Your task to perform on an android device: clear history in the chrome app Image 0: 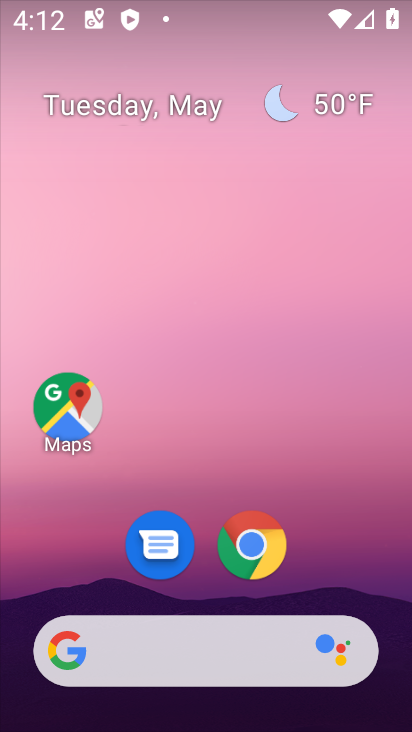
Step 0: click (259, 461)
Your task to perform on an android device: clear history in the chrome app Image 1: 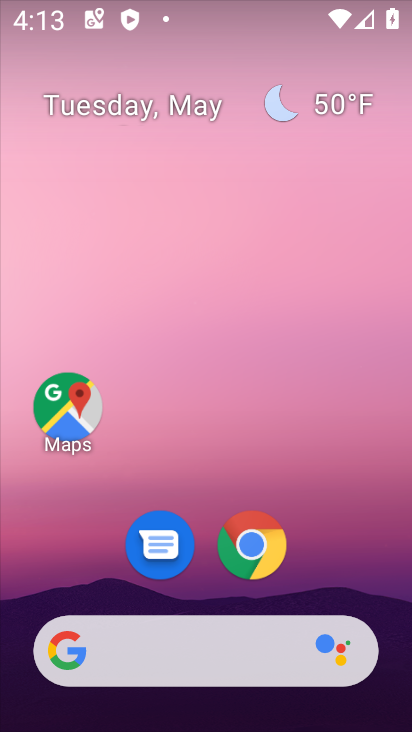
Step 1: click (269, 557)
Your task to perform on an android device: clear history in the chrome app Image 2: 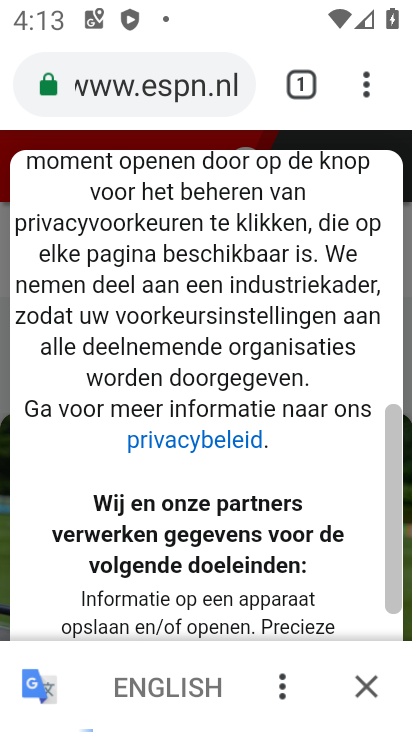
Step 2: click (364, 87)
Your task to perform on an android device: clear history in the chrome app Image 3: 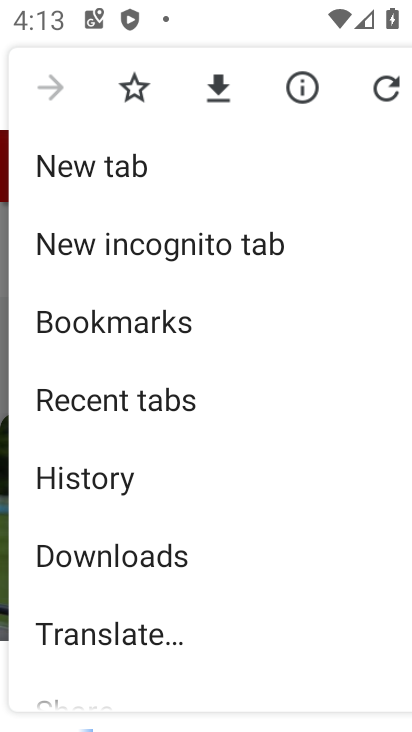
Step 3: click (136, 492)
Your task to perform on an android device: clear history in the chrome app Image 4: 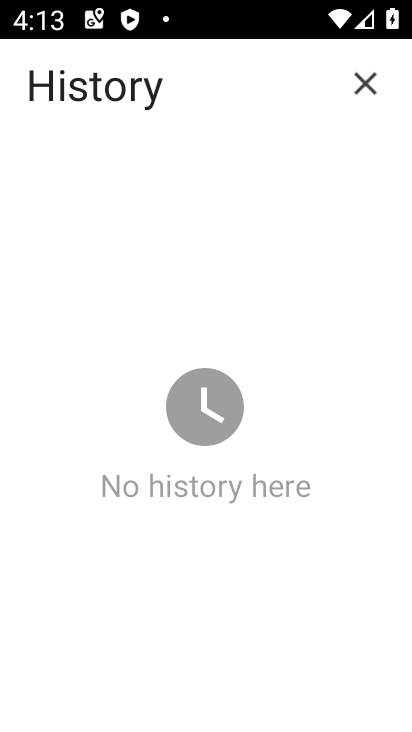
Step 4: task complete